Your task to perform on an android device: Open Youtube and go to "Your channel" Image 0: 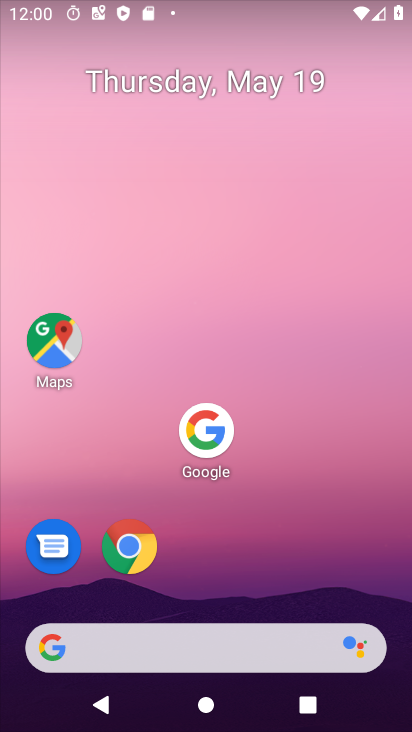
Step 0: drag from (264, 563) to (258, 99)
Your task to perform on an android device: Open Youtube and go to "Your channel" Image 1: 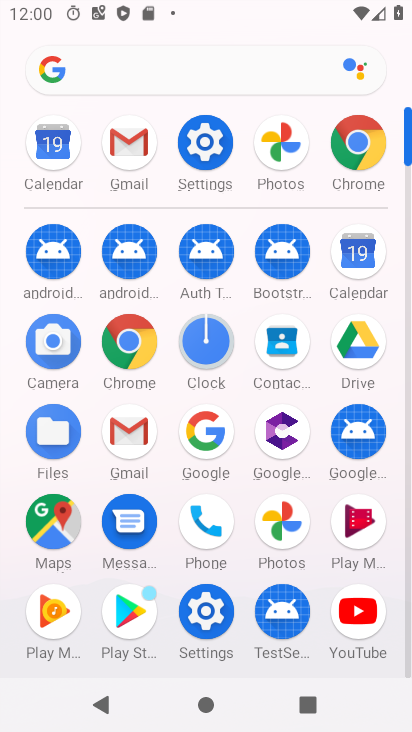
Step 1: click (354, 610)
Your task to perform on an android device: Open Youtube and go to "Your channel" Image 2: 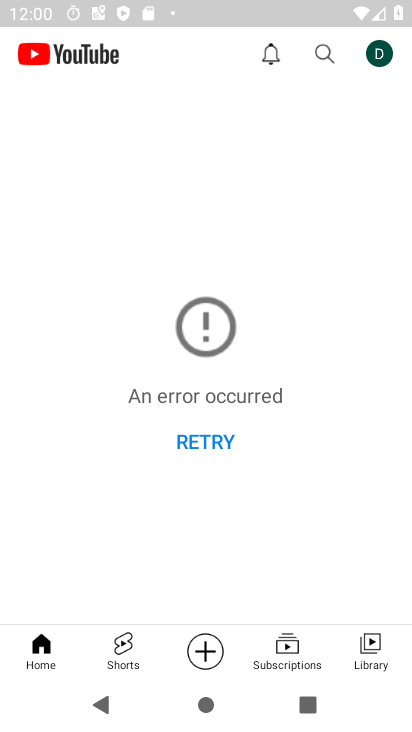
Step 2: click (384, 50)
Your task to perform on an android device: Open Youtube and go to "Your channel" Image 3: 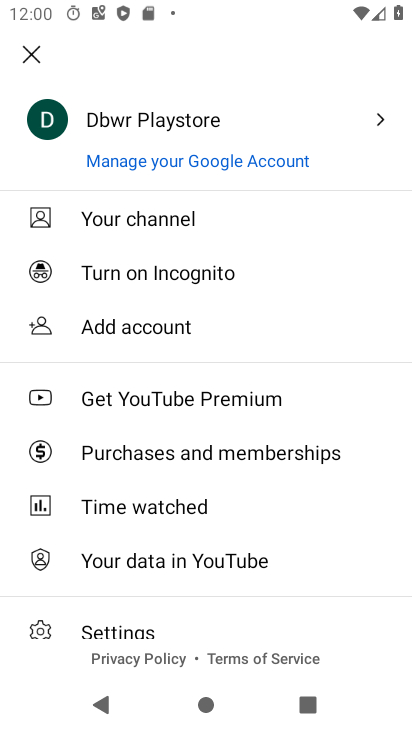
Step 3: click (154, 228)
Your task to perform on an android device: Open Youtube and go to "Your channel" Image 4: 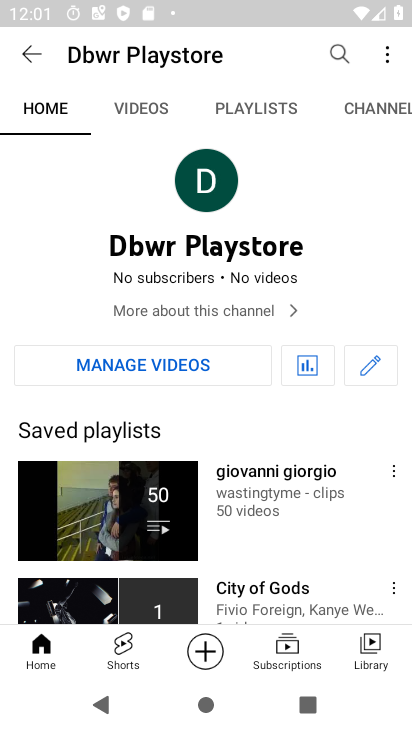
Step 4: task complete